Your task to perform on an android device: Check the news Image 0: 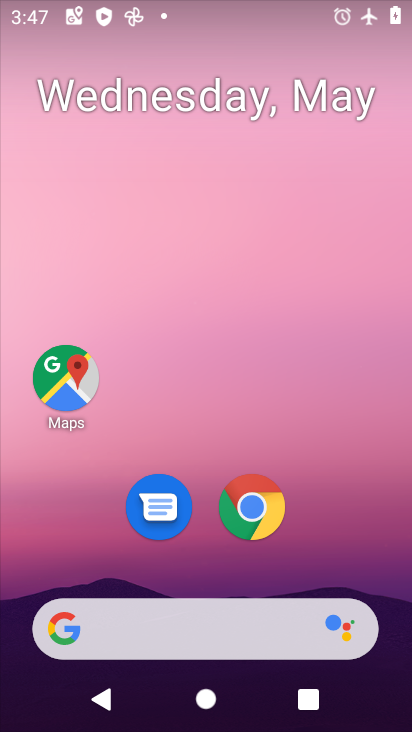
Step 0: click (240, 497)
Your task to perform on an android device: Check the news Image 1: 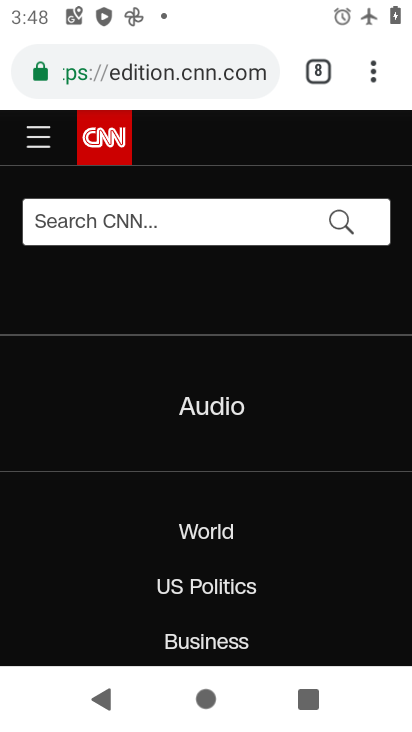
Step 1: click (325, 76)
Your task to perform on an android device: Check the news Image 2: 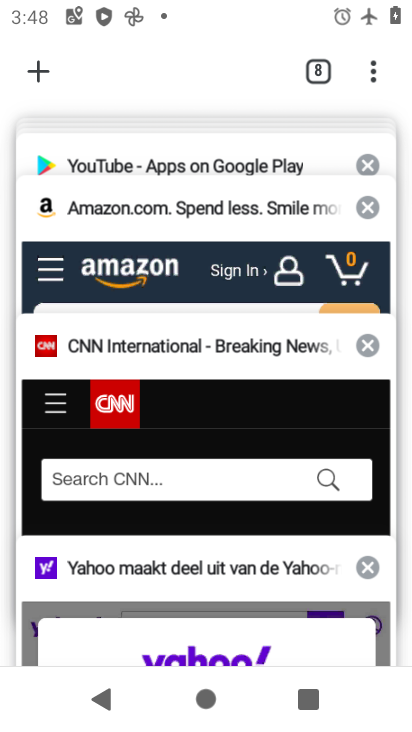
Step 2: drag from (129, 167) to (155, 426)
Your task to perform on an android device: Check the news Image 3: 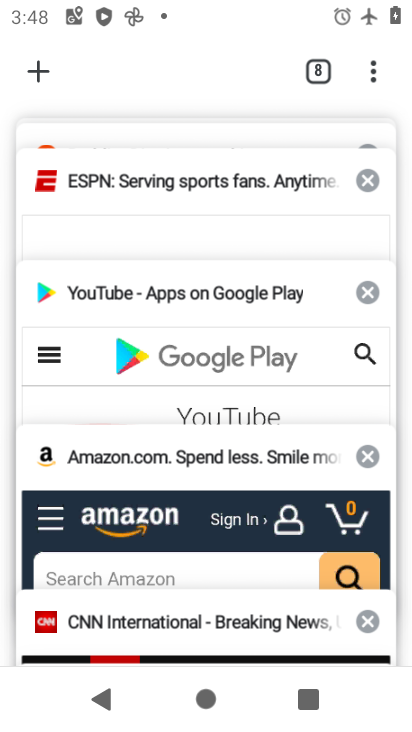
Step 3: drag from (137, 178) to (156, 561)
Your task to perform on an android device: Check the news Image 4: 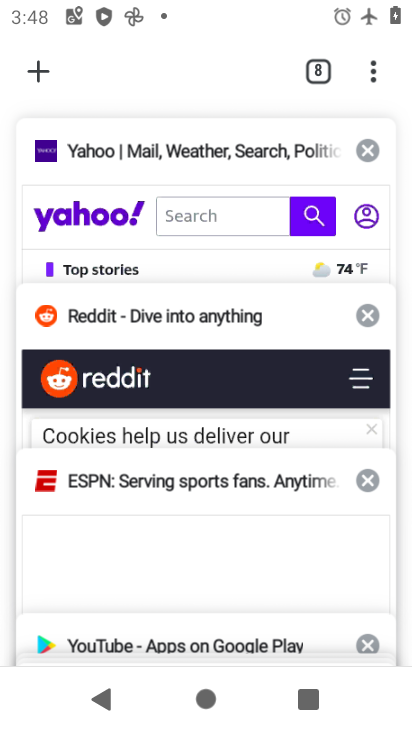
Step 4: drag from (222, 172) to (215, 584)
Your task to perform on an android device: Check the news Image 5: 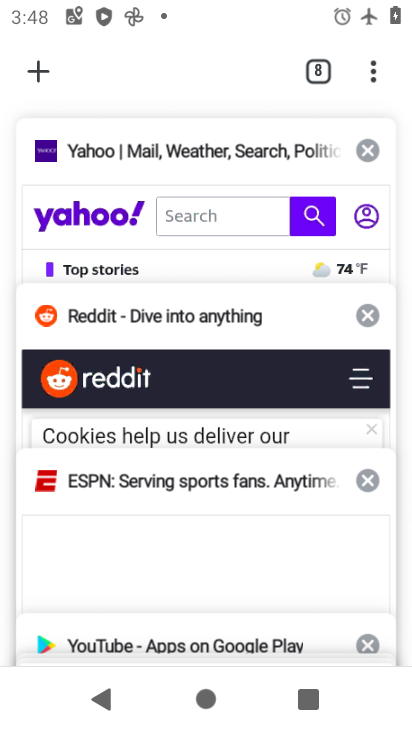
Step 5: click (37, 77)
Your task to perform on an android device: Check the news Image 6: 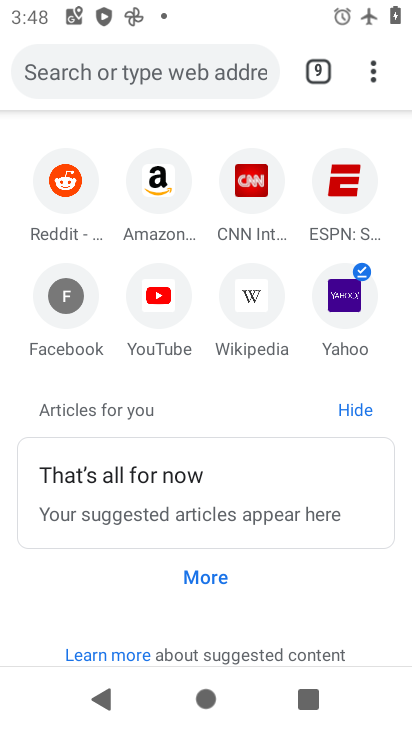
Step 6: click (108, 65)
Your task to perform on an android device: Check the news Image 7: 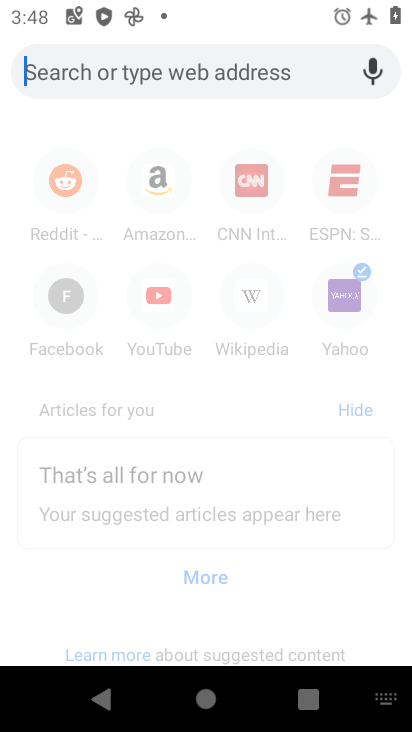
Step 7: drag from (389, 13) to (352, 507)
Your task to perform on an android device: Check the news Image 8: 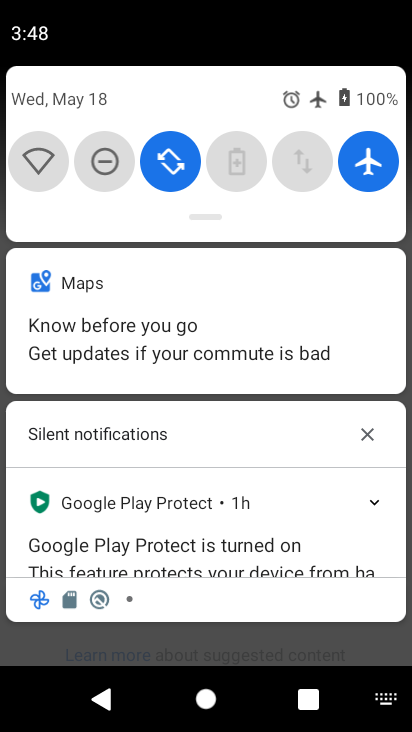
Step 8: click (386, 163)
Your task to perform on an android device: Check the news Image 9: 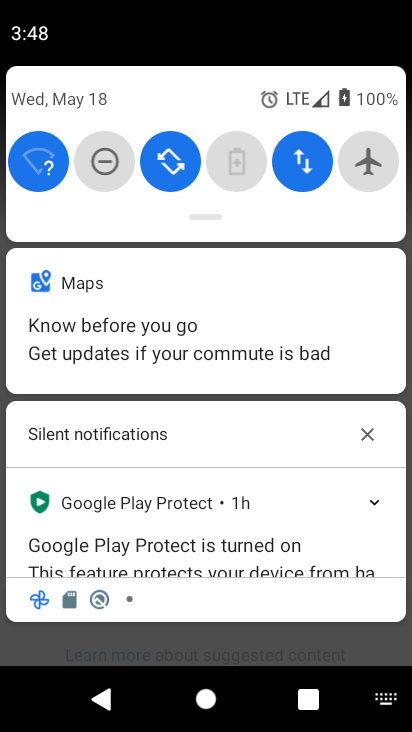
Step 9: drag from (311, 628) to (301, 388)
Your task to perform on an android device: Check the news Image 10: 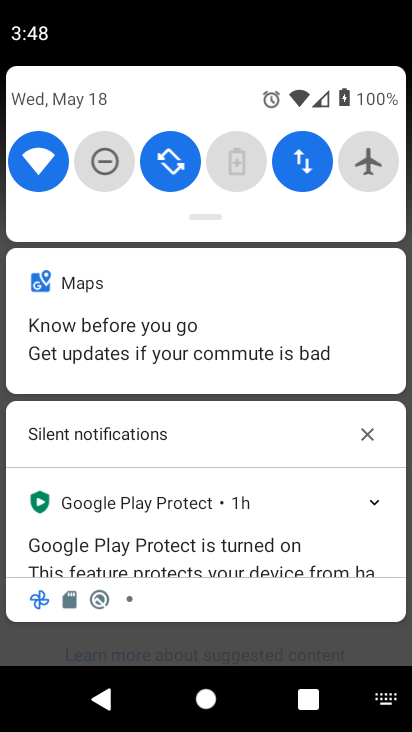
Step 10: press back button
Your task to perform on an android device: Check the news Image 11: 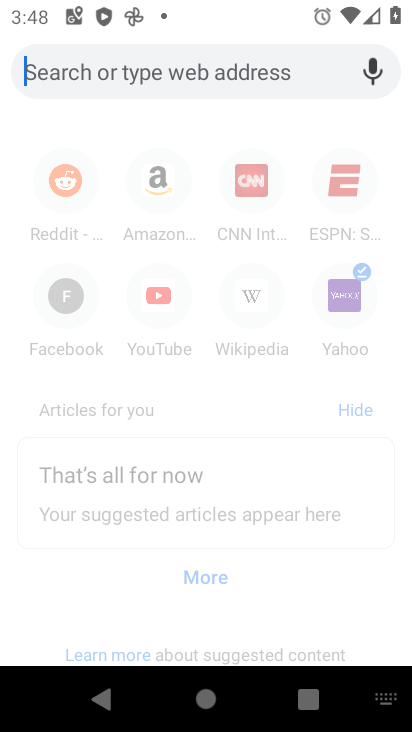
Step 11: click (163, 67)
Your task to perform on an android device: Check the news Image 12: 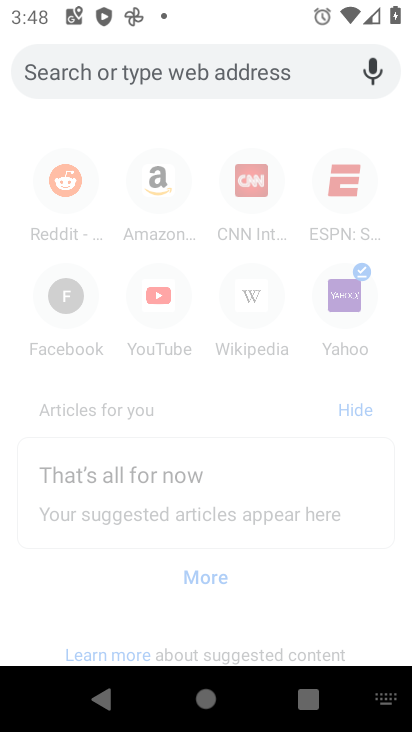
Step 12: click (163, 67)
Your task to perform on an android device: Check the news Image 13: 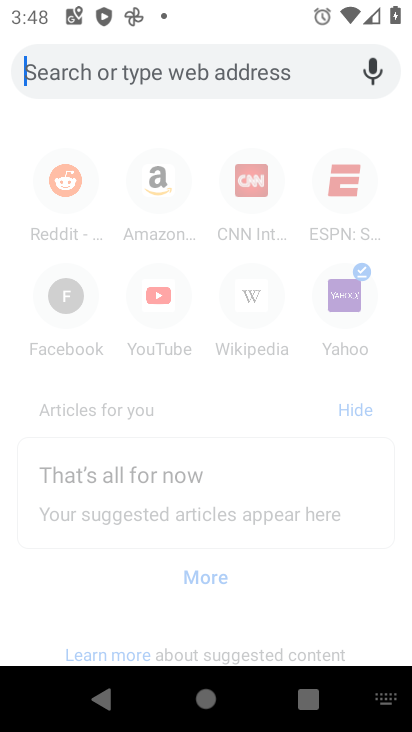
Step 13: type "news"
Your task to perform on an android device: Check the news Image 14: 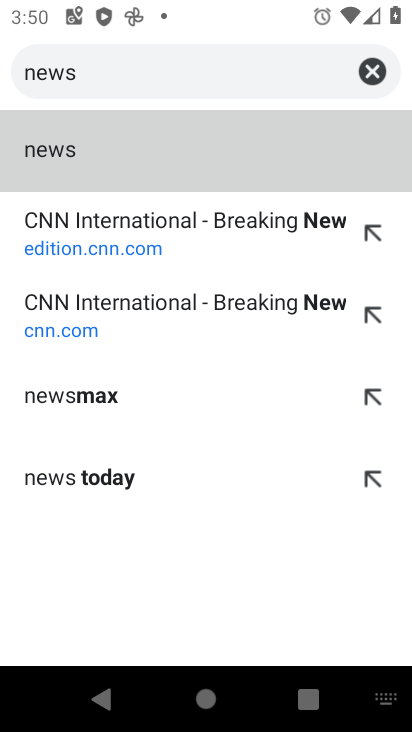
Step 14: click (135, 151)
Your task to perform on an android device: Check the news Image 15: 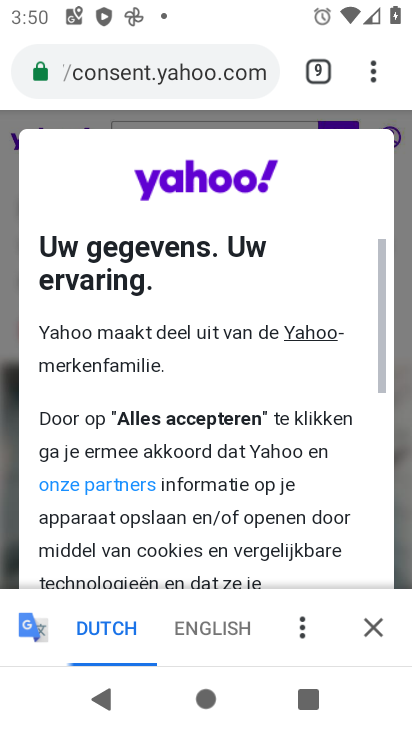
Step 15: press home button
Your task to perform on an android device: Check the news Image 16: 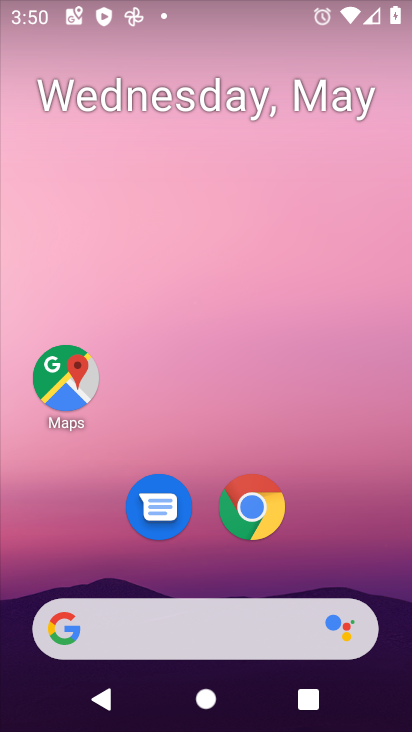
Step 16: click (200, 632)
Your task to perform on an android device: Check the news Image 17: 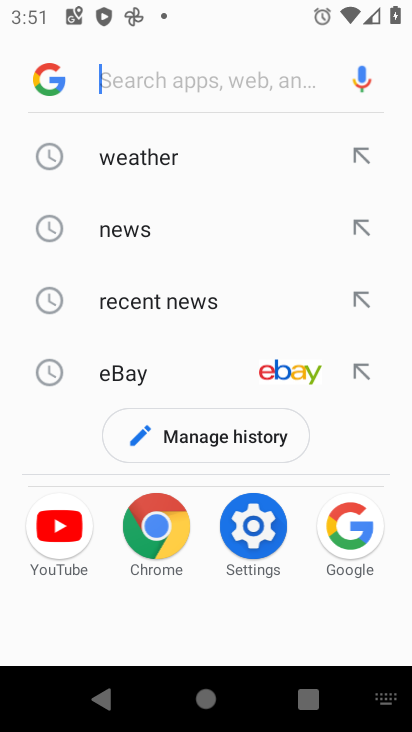
Step 17: click (127, 242)
Your task to perform on an android device: Check the news Image 18: 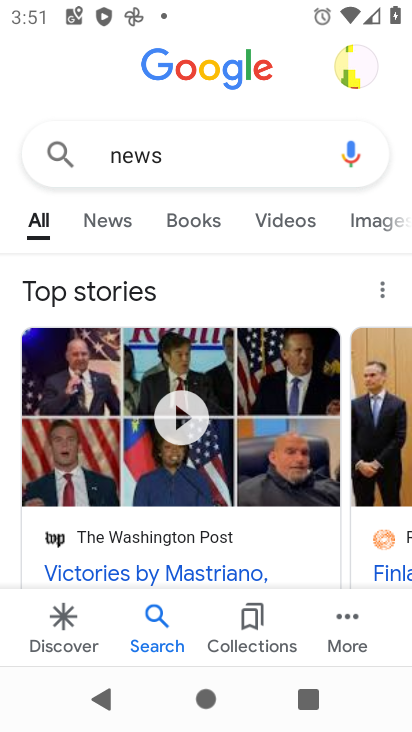
Step 18: task complete